Your task to perform on an android device: What's on my calendar tomorrow? Image 0: 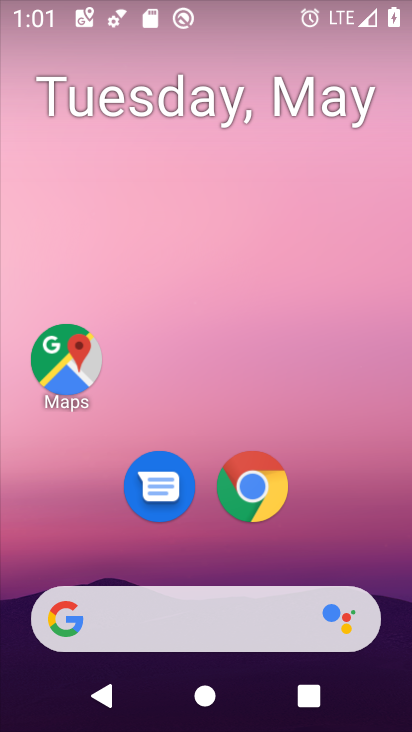
Step 0: drag from (41, 593) to (266, 137)
Your task to perform on an android device: What's on my calendar tomorrow? Image 1: 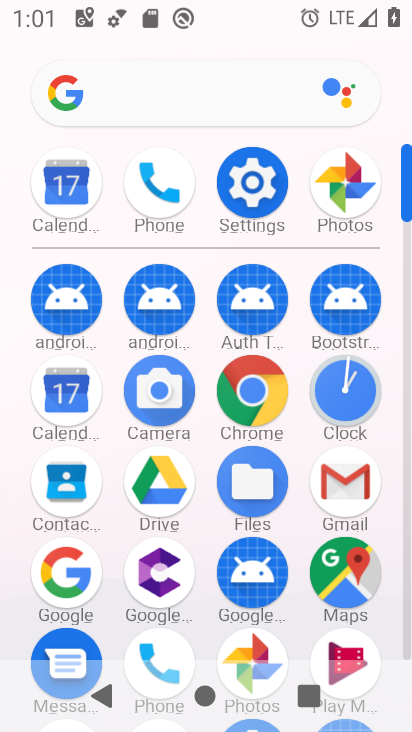
Step 1: click (81, 400)
Your task to perform on an android device: What's on my calendar tomorrow? Image 2: 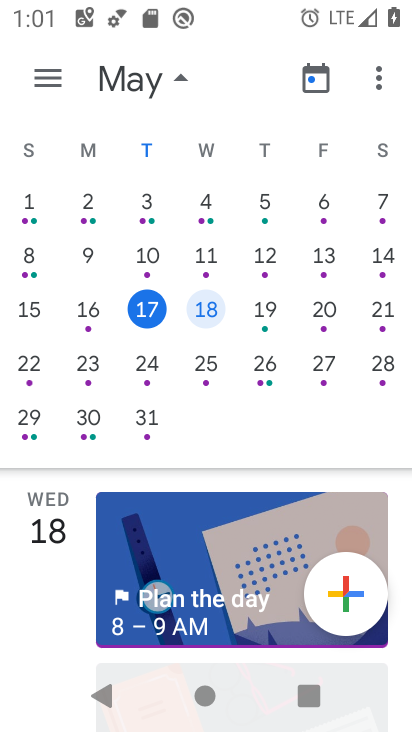
Step 2: click (193, 301)
Your task to perform on an android device: What's on my calendar tomorrow? Image 3: 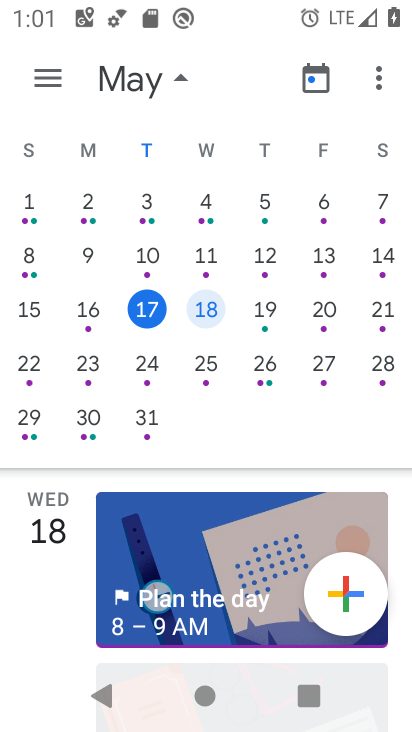
Step 3: click (200, 303)
Your task to perform on an android device: What's on my calendar tomorrow? Image 4: 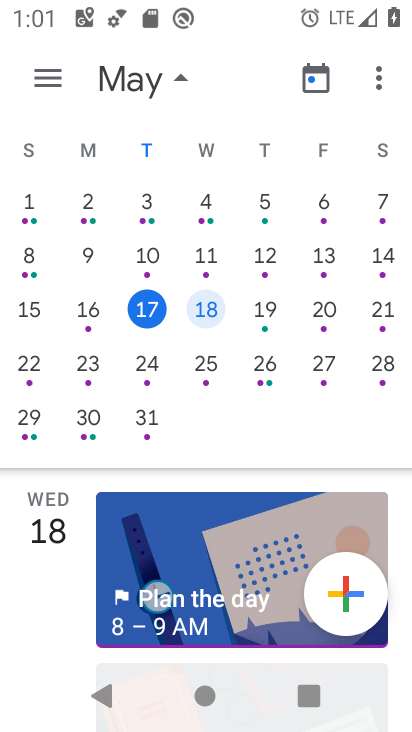
Step 4: click (212, 305)
Your task to perform on an android device: What's on my calendar tomorrow? Image 5: 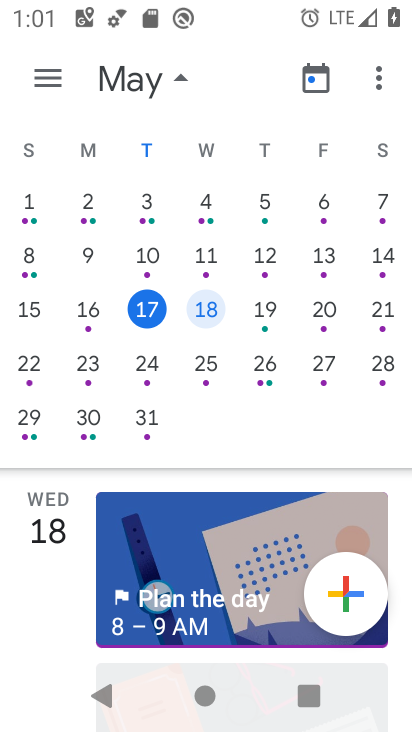
Step 5: click (211, 306)
Your task to perform on an android device: What's on my calendar tomorrow? Image 6: 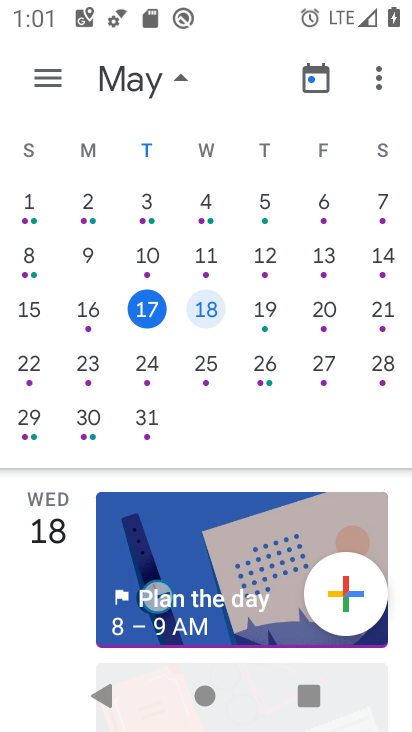
Step 6: click (189, 314)
Your task to perform on an android device: What's on my calendar tomorrow? Image 7: 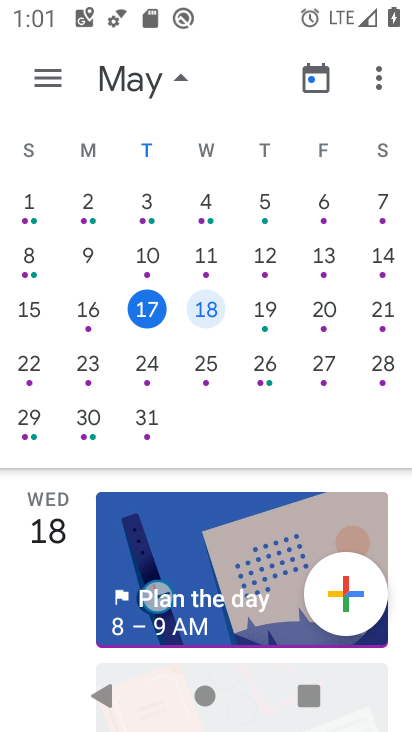
Step 7: click (257, 302)
Your task to perform on an android device: What's on my calendar tomorrow? Image 8: 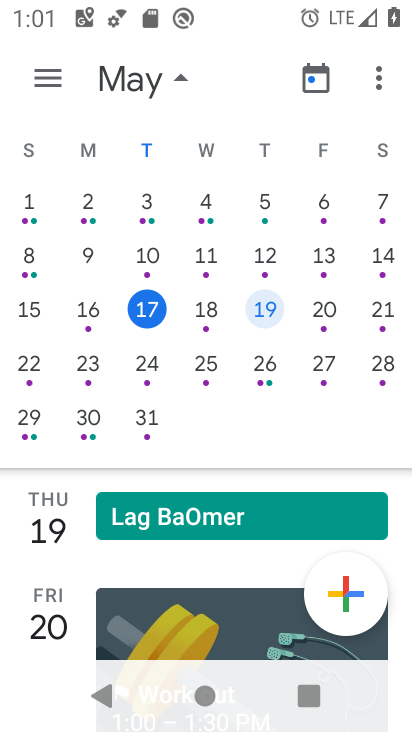
Step 8: click (197, 309)
Your task to perform on an android device: What's on my calendar tomorrow? Image 9: 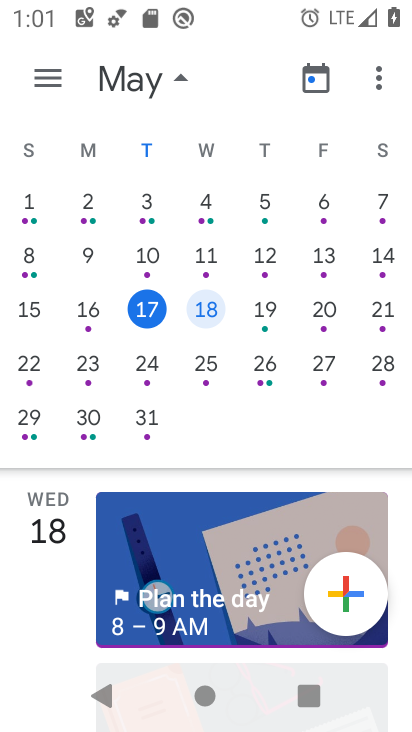
Step 9: task complete